Your task to perform on an android device: snooze an email in the gmail app Image 0: 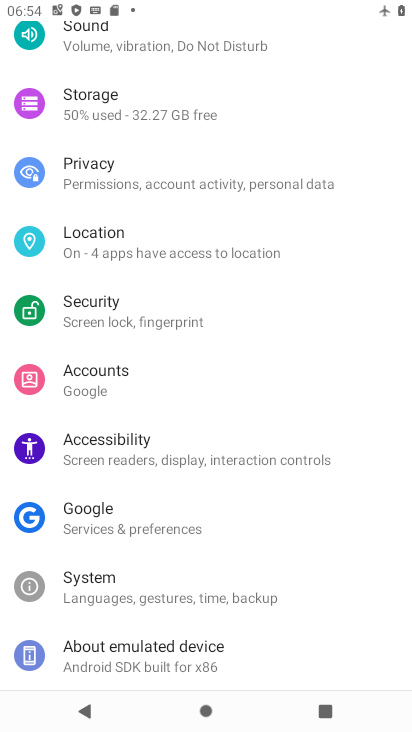
Step 0: press home button
Your task to perform on an android device: snooze an email in the gmail app Image 1: 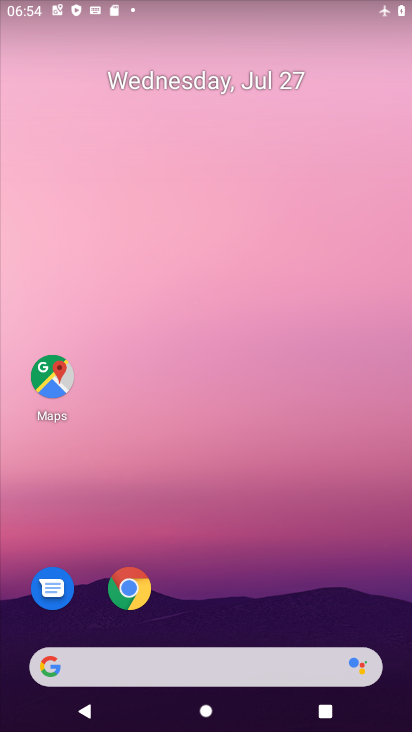
Step 1: drag from (290, 654) to (313, 37)
Your task to perform on an android device: snooze an email in the gmail app Image 2: 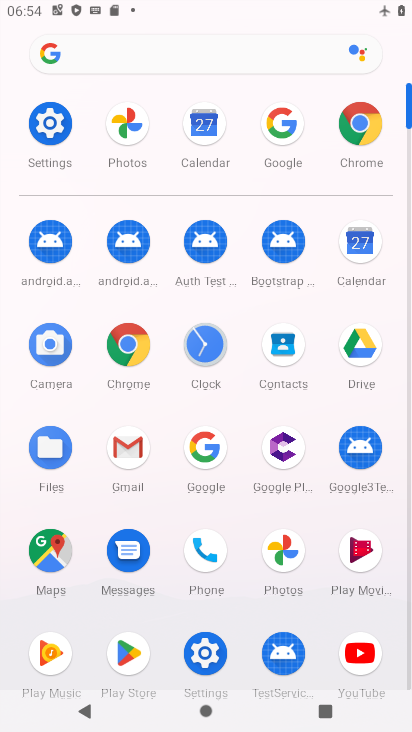
Step 2: click (129, 435)
Your task to perform on an android device: snooze an email in the gmail app Image 3: 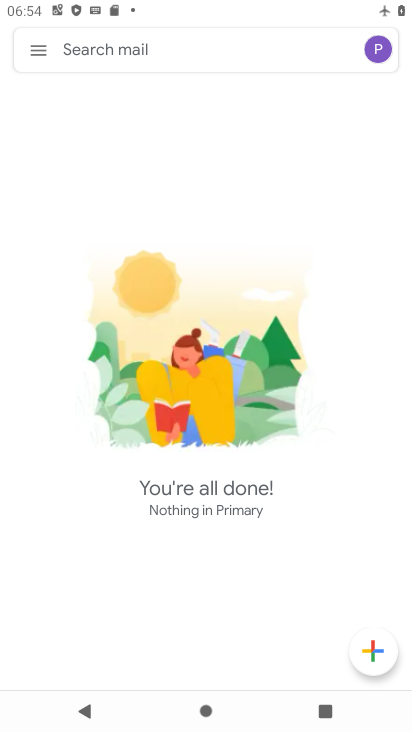
Step 3: click (42, 41)
Your task to perform on an android device: snooze an email in the gmail app Image 4: 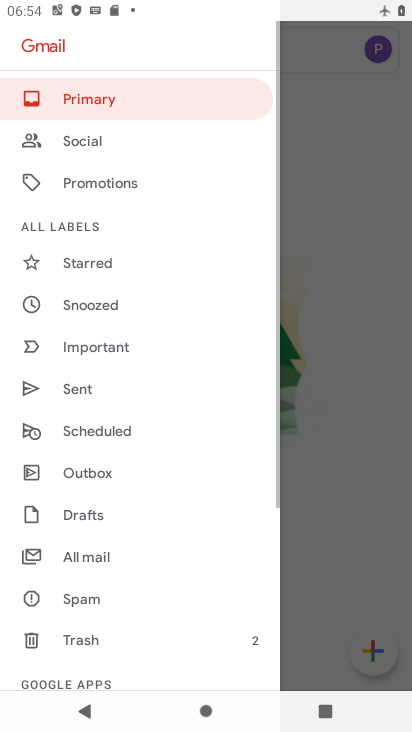
Step 4: click (123, 297)
Your task to perform on an android device: snooze an email in the gmail app Image 5: 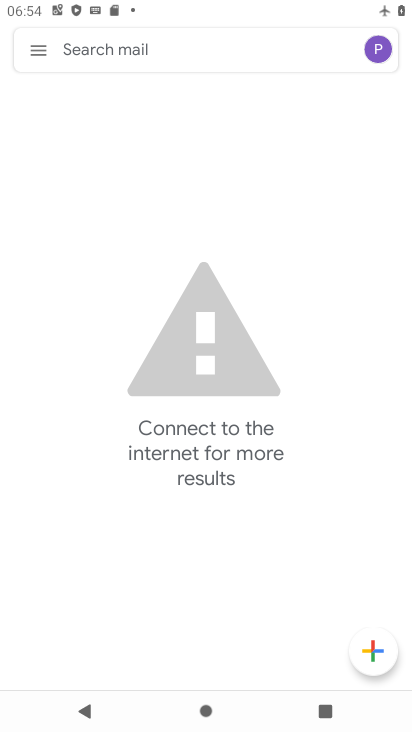
Step 5: task complete